Your task to perform on an android device: check out phone information Image 0: 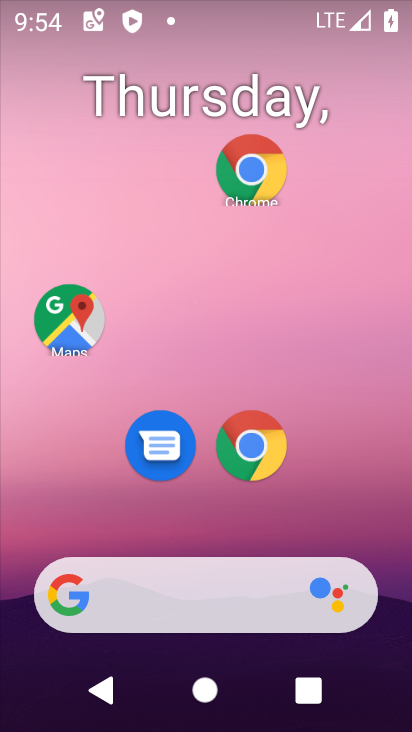
Step 0: drag from (220, 548) to (224, 8)
Your task to perform on an android device: check out phone information Image 1: 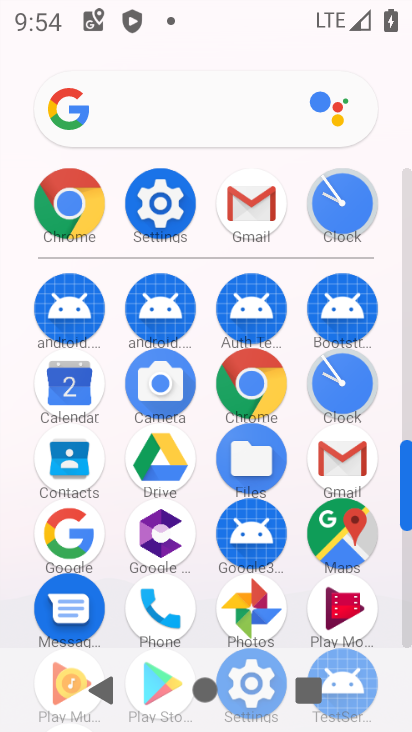
Step 1: click (144, 203)
Your task to perform on an android device: check out phone information Image 2: 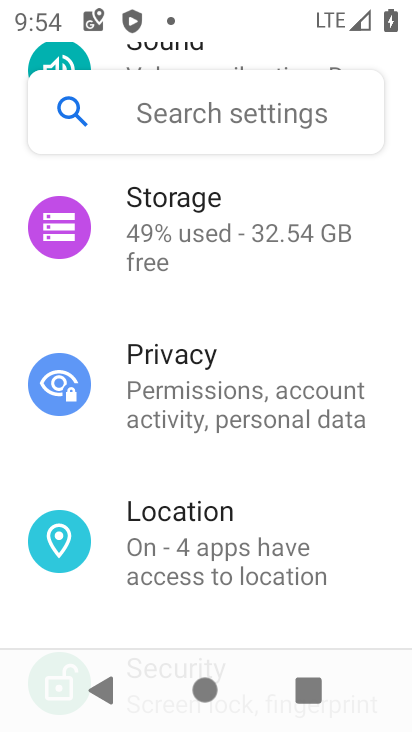
Step 2: drag from (230, 558) to (186, 10)
Your task to perform on an android device: check out phone information Image 3: 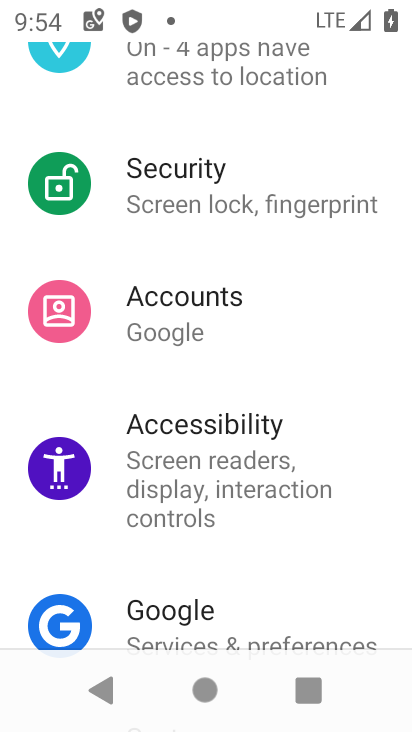
Step 3: drag from (258, 548) to (187, 165)
Your task to perform on an android device: check out phone information Image 4: 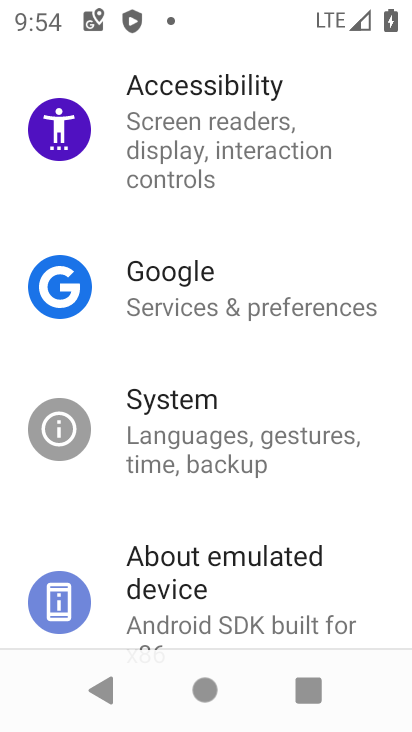
Step 4: click (276, 583)
Your task to perform on an android device: check out phone information Image 5: 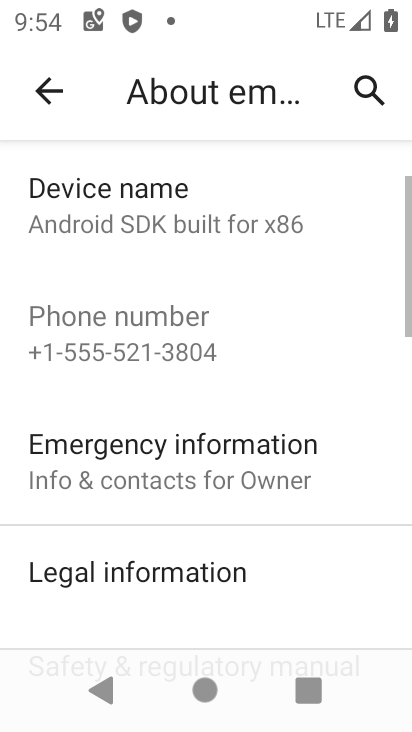
Step 5: task complete